Your task to perform on an android device: Open maps Image 0: 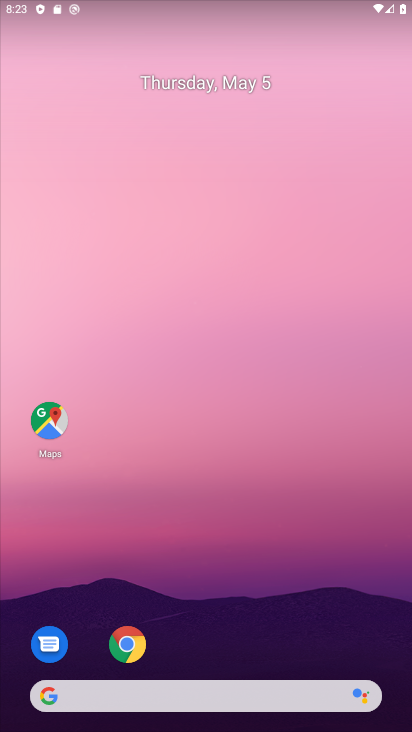
Step 0: drag from (235, 607) to (155, 6)
Your task to perform on an android device: Open maps Image 1: 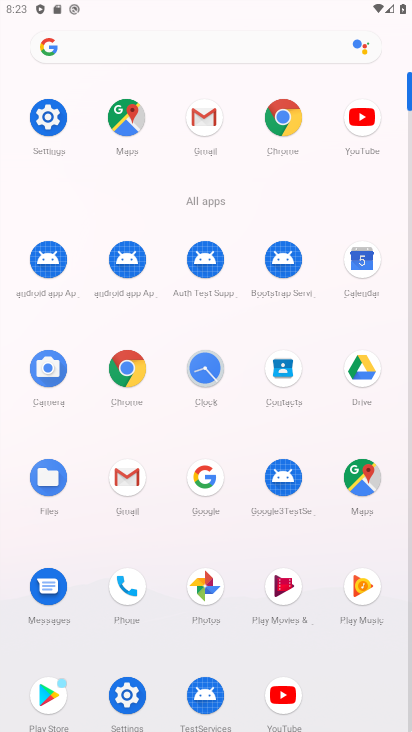
Step 1: click (129, 124)
Your task to perform on an android device: Open maps Image 2: 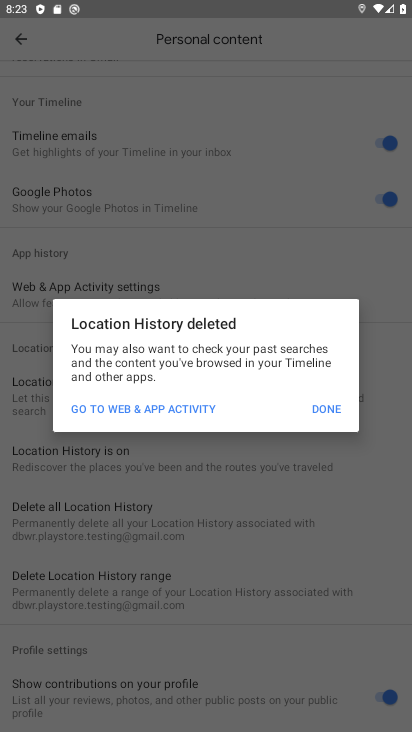
Step 2: task complete